Your task to perform on an android device: refresh tabs in the chrome app Image 0: 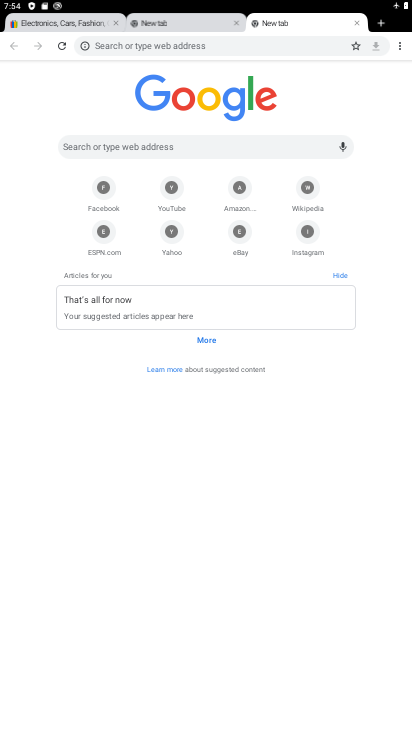
Step 0: press home button
Your task to perform on an android device: refresh tabs in the chrome app Image 1: 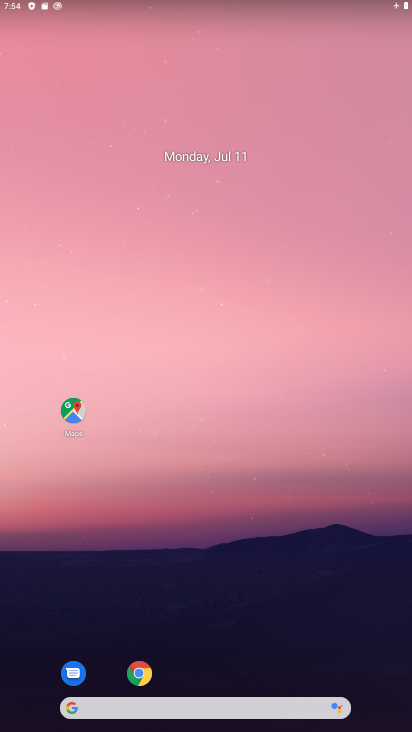
Step 1: click (140, 679)
Your task to perform on an android device: refresh tabs in the chrome app Image 2: 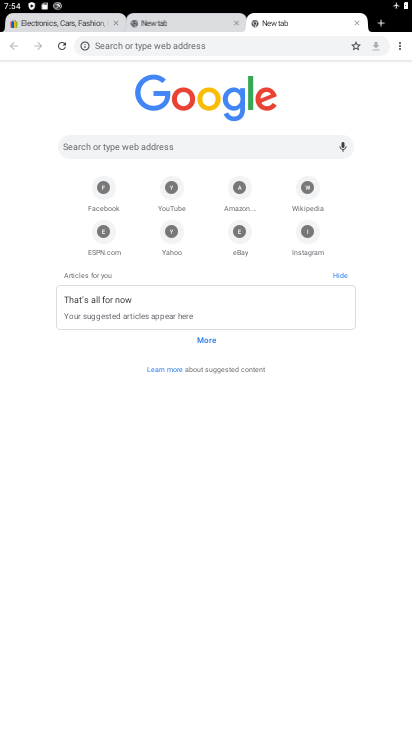
Step 2: click (362, 24)
Your task to perform on an android device: refresh tabs in the chrome app Image 3: 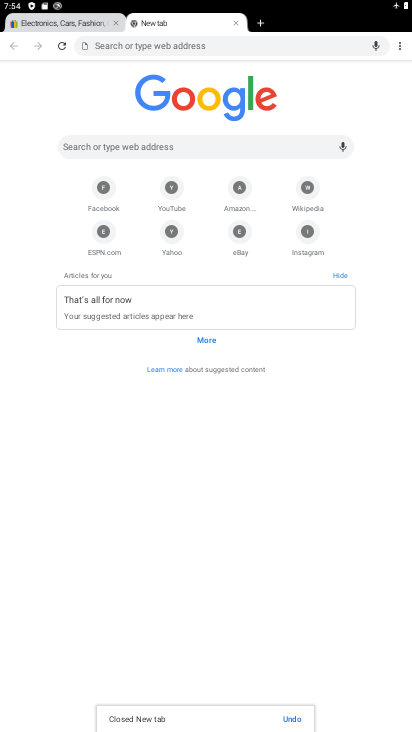
Step 3: click (232, 19)
Your task to perform on an android device: refresh tabs in the chrome app Image 4: 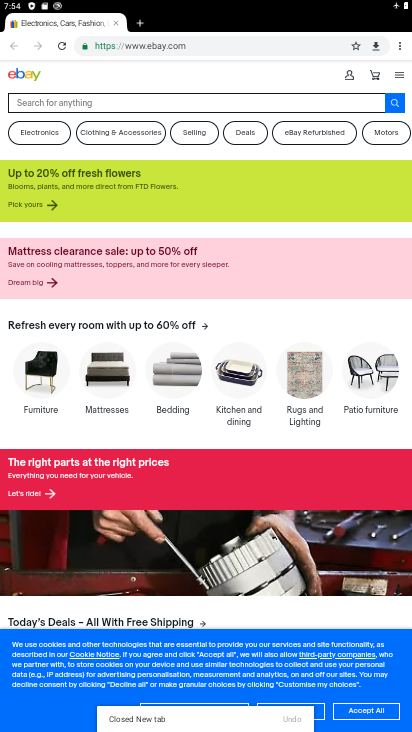
Step 4: click (398, 43)
Your task to perform on an android device: refresh tabs in the chrome app Image 5: 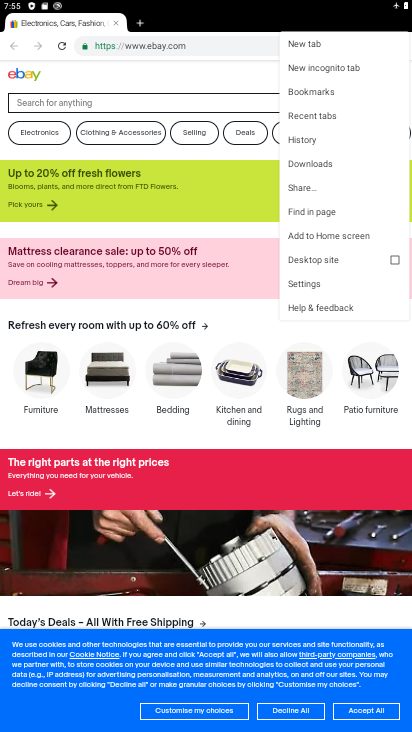
Step 5: click (118, 20)
Your task to perform on an android device: refresh tabs in the chrome app Image 6: 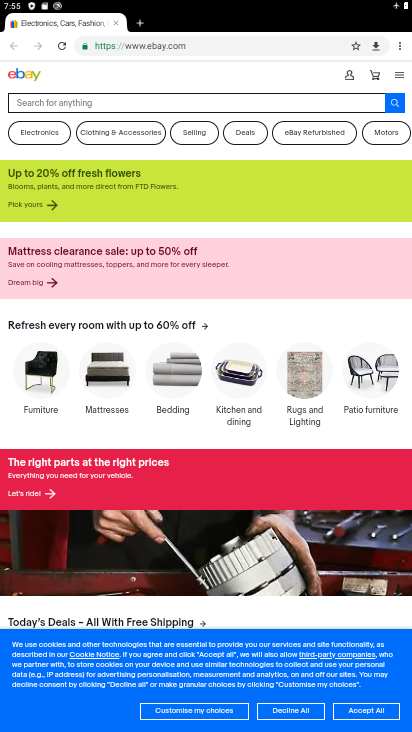
Step 6: click (116, 25)
Your task to perform on an android device: refresh tabs in the chrome app Image 7: 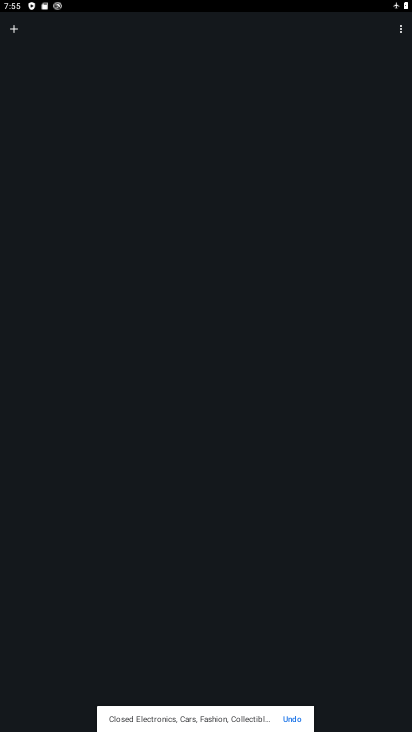
Step 7: click (401, 29)
Your task to perform on an android device: refresh tabs in the chrome app Image 8: 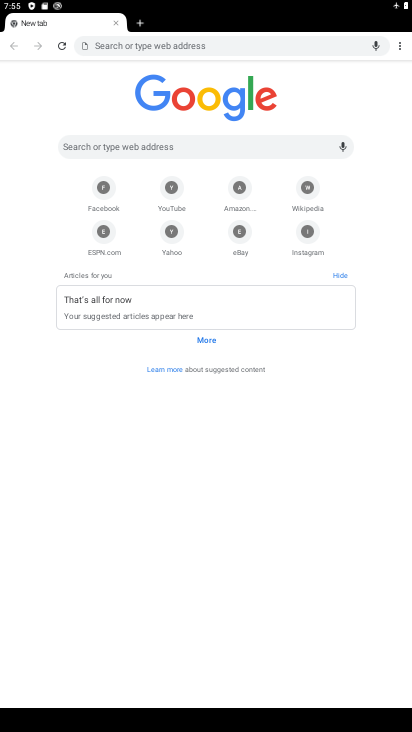
Step 8: click (397, 46)
Your task to perform on an android device: refresh tabs in the chrome app Image 9: 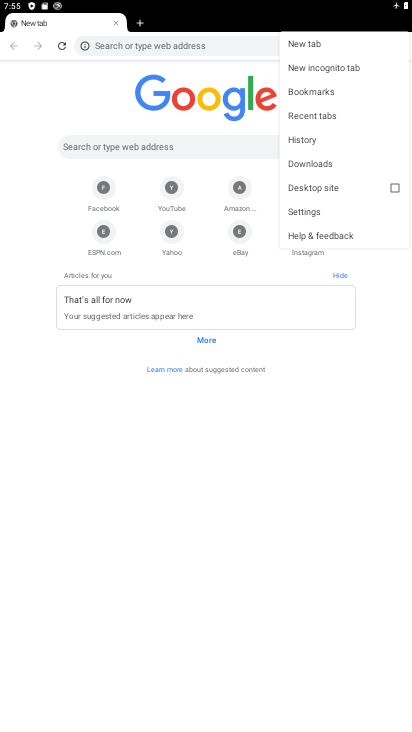
Step 9: click (60, 46)
Your task to perform on an android device: refresh tabs in the chrome app Image 10: 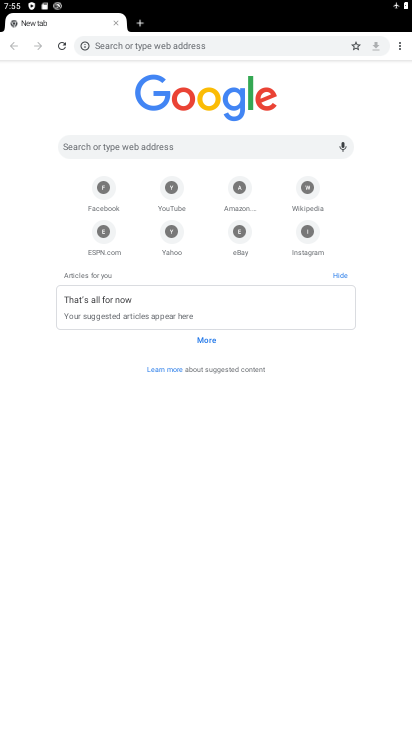
Step 10: click (66, 44)
Your task to perform on an android device: refresh tabs in the chrome app Image 11: 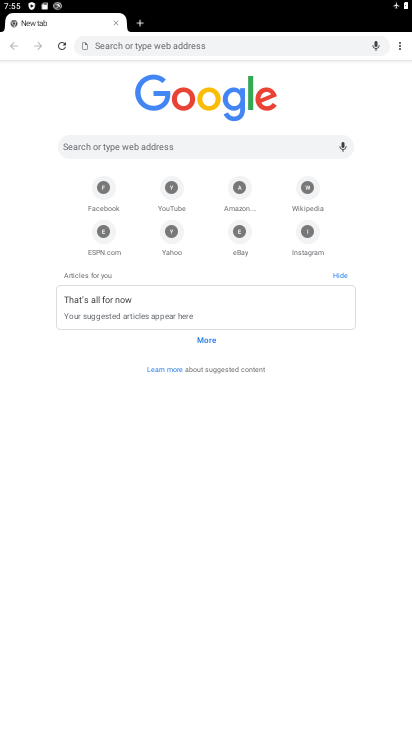
Step 11: task complete